Your task to perform on an android device: Turn on the flashlight Image 0: 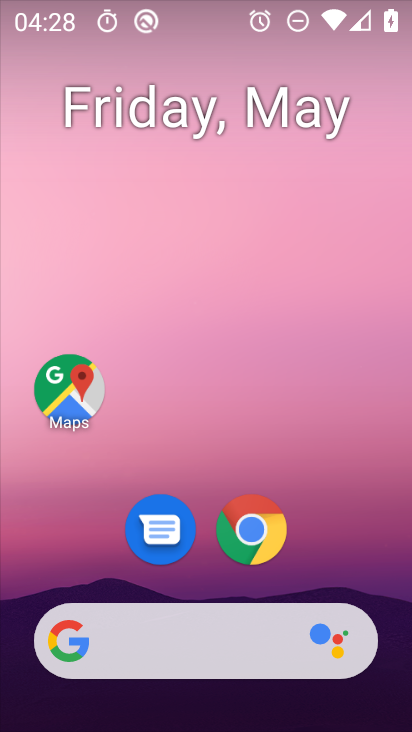
Step 0: drag from (399, 682) to (372, 237)
Your task to perform on an android device: Turn on the flashlight Image 1: 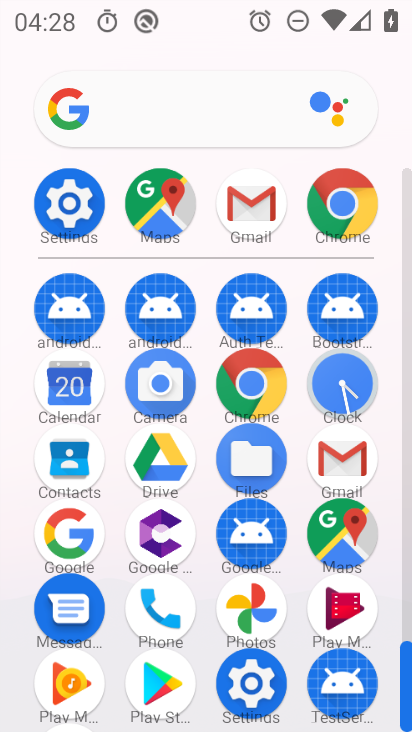
Step 1: click (68, 211)
Your task to perform on an android device: Turn on the flashlight Image 2: 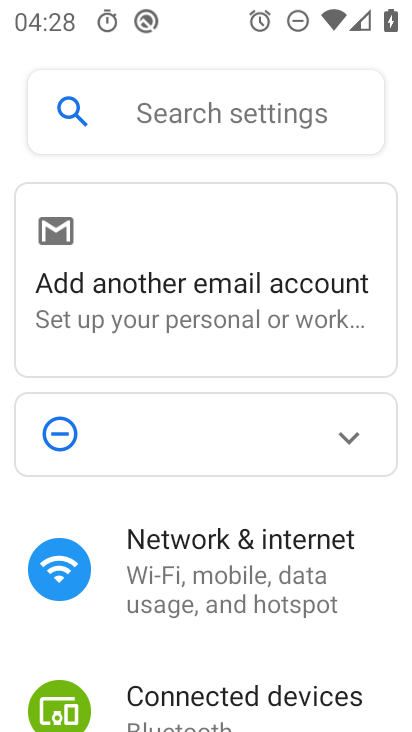
Step 2: drag from (244, 671) to (234, 256)
Your task to perform on an android device: Turn on the flashlight Image 3: 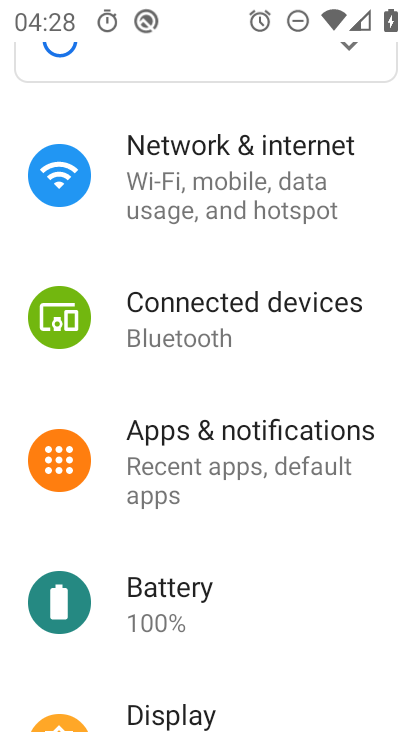
Step 3: click (156, 714)
Your task to perform on an android device: Turn on the flashlight Image 4: 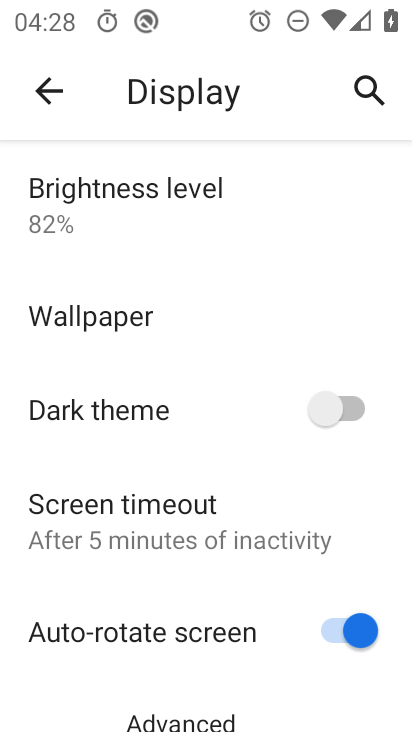
Step 4: task complete